Your task to perform on an android device: See recent photos Image 0: 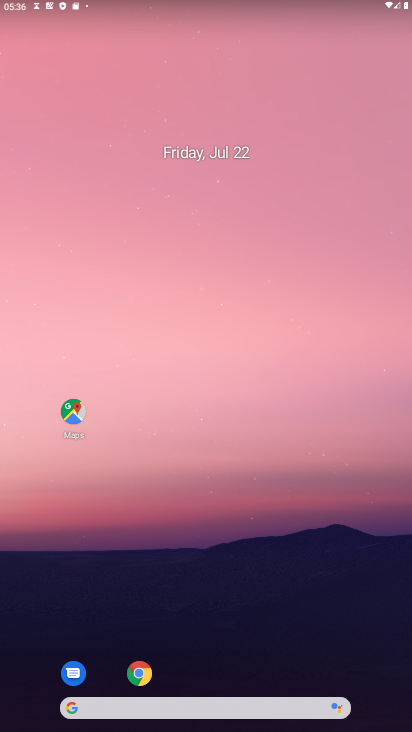
Step 0: press home button
Your task to perform on an android device: See recent photos Image 1: 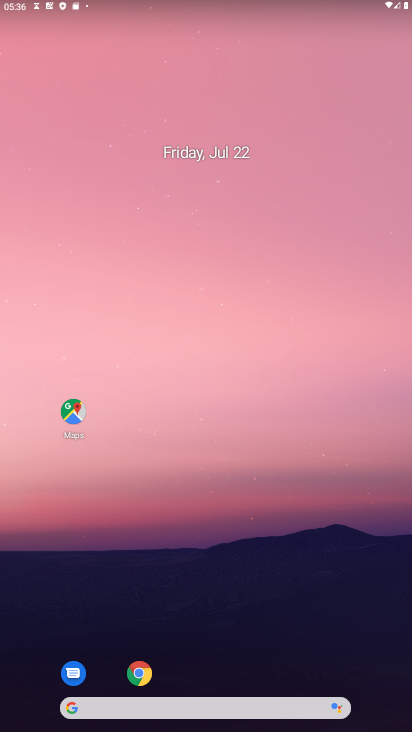
Step 1: drag from (233, 635) to (284, 68)
Your task to perform on an android device: See recent photos Image 2: 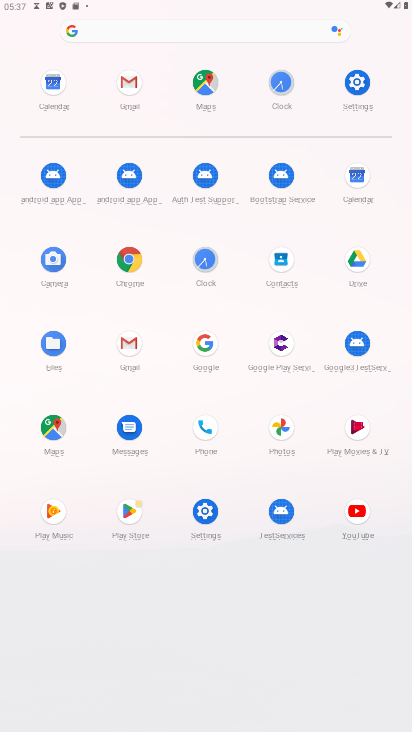
Step 2: click (279, 435)
Your task to perform on an android device: See recent photos Image 3: 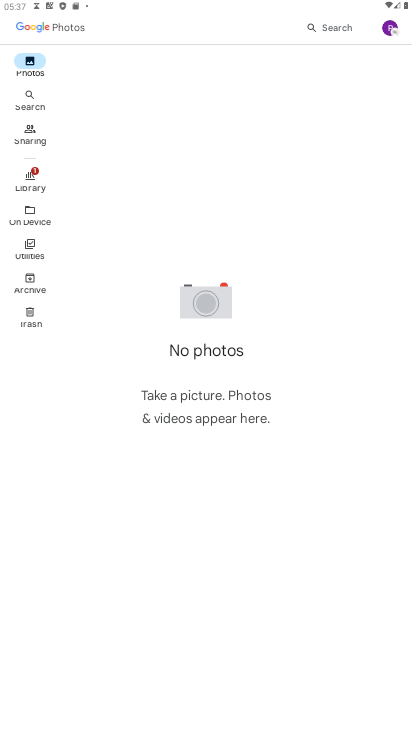
Step 3: click (27, 68)
Your task to perform on an android device: See recent photos Image 4: 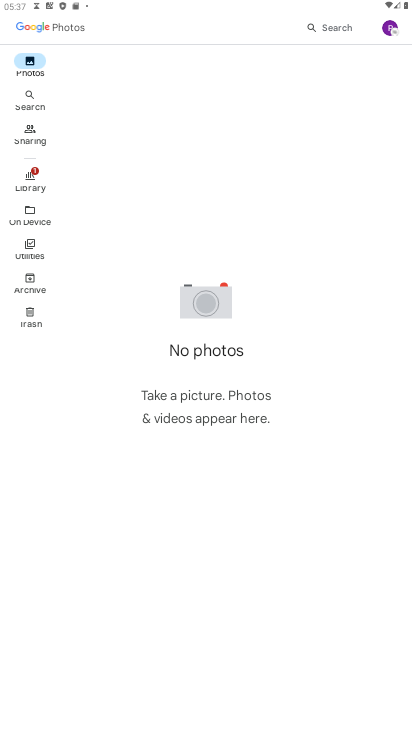
Step 4: task complete